Your task to perform on an android device: turn notification dots on Image 0: 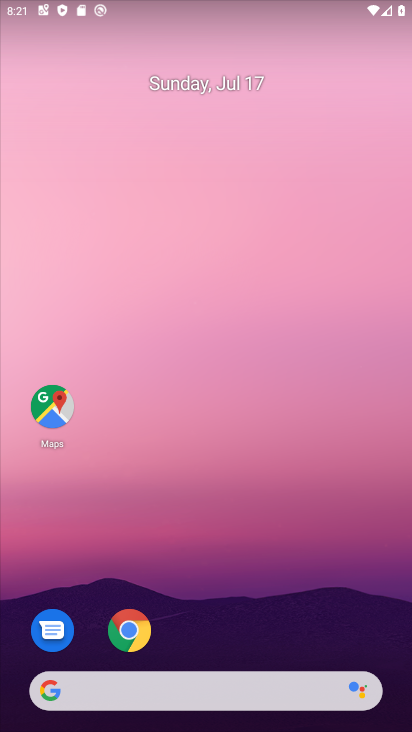
Step 0: drag from (347, 579) to (331, 27)
Your task to perform on an android device: turn notification dots on Image 1: 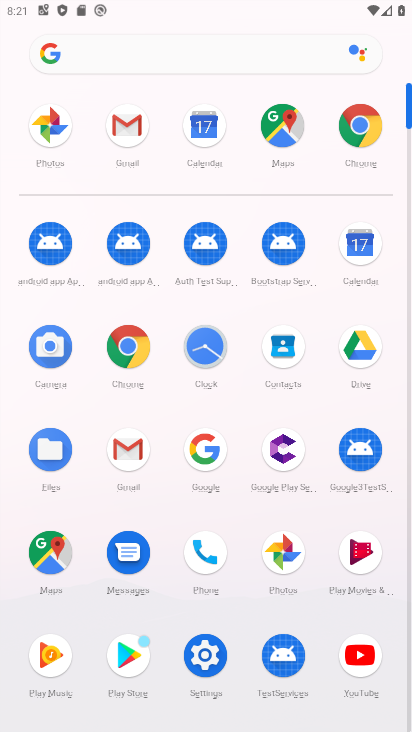
Step 1: click (210, 652)
Your task to perform on an android device: turn notification dots on Image 2: 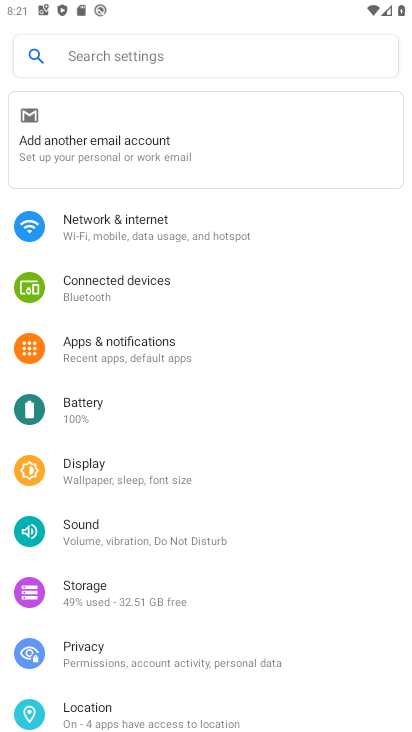
Step 2: drag from (348, 525) to (348, 363)
Your task to perform on an android device: turn notification dots on Image 3: 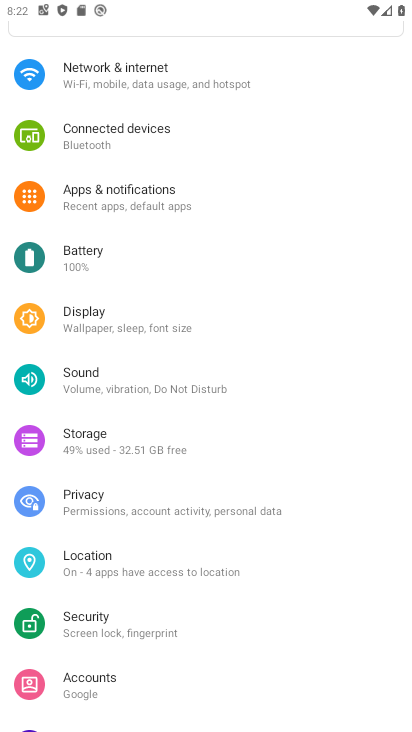
Step 3: drag from (351, 494) to (363, 371)
Your task to perform on an android device: turn notification dots on Image 4: 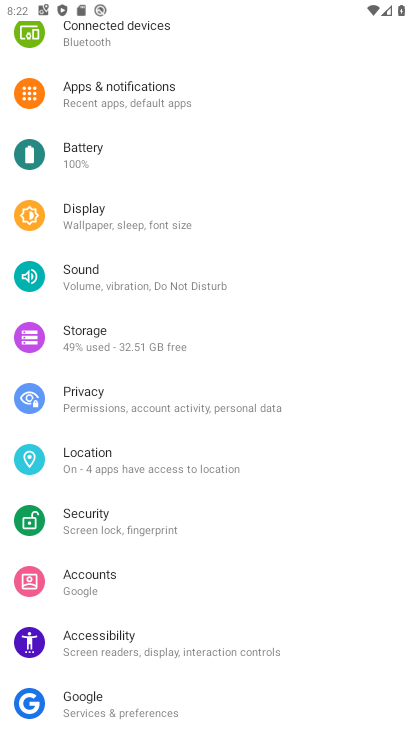
Step 4: drag from (351, 495) to (355, 371)
Your task to perform on an android device: turn notification dots on Image 5: 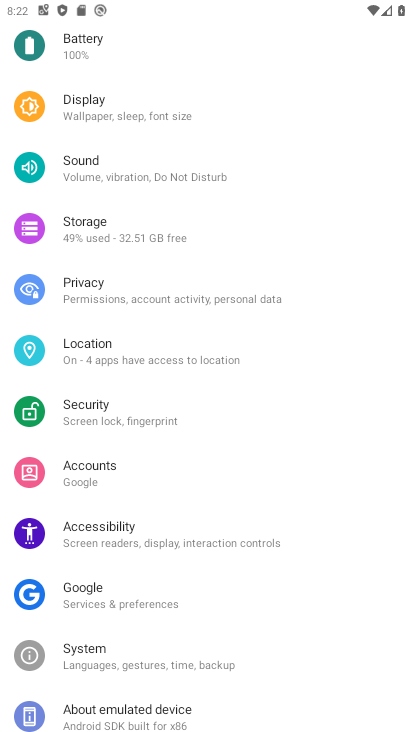
Step 5: drag from (358, 509) to (361, 364)
Your task to perform on an android device: turn notification dots on Image 6: 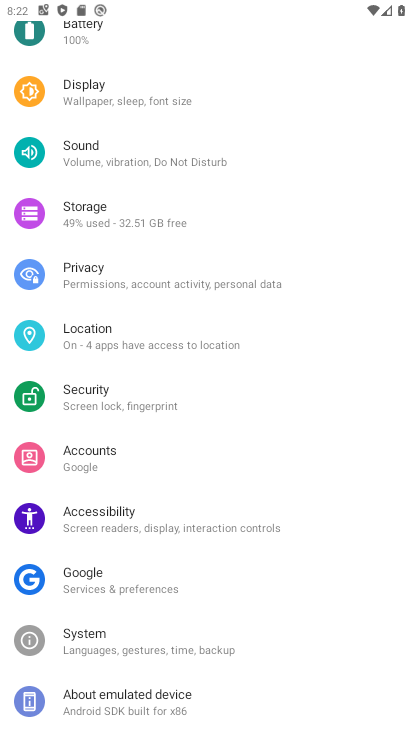
Step 6: drag from (363, 195) to (366, 361)
Your task to perform on an android device: turn notification dots on Image 7: 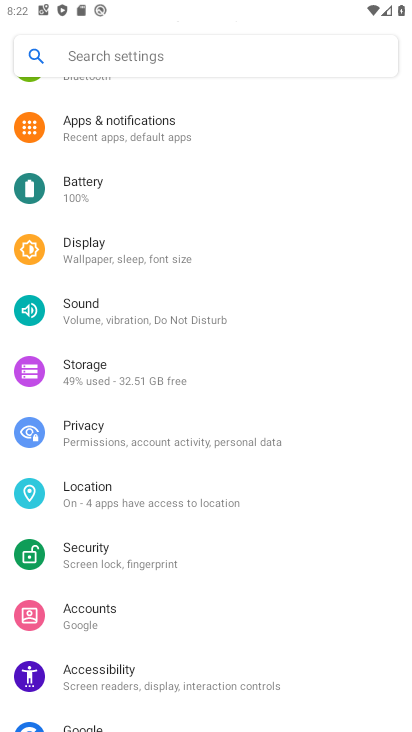
Step 7: drag from (345, 207) to (354, 350)
Your task to perform on an android device: turn notification dots on Image 8: 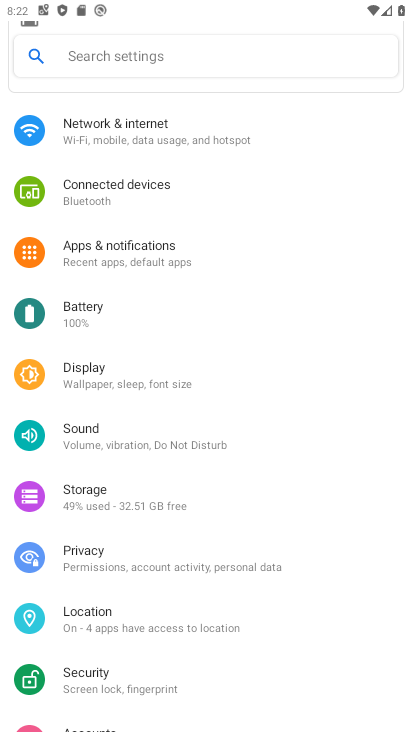
Step 8: drag from (352, 189) to (351, 403)
Your task to perform on an android device: turn notification dots on Image 9: 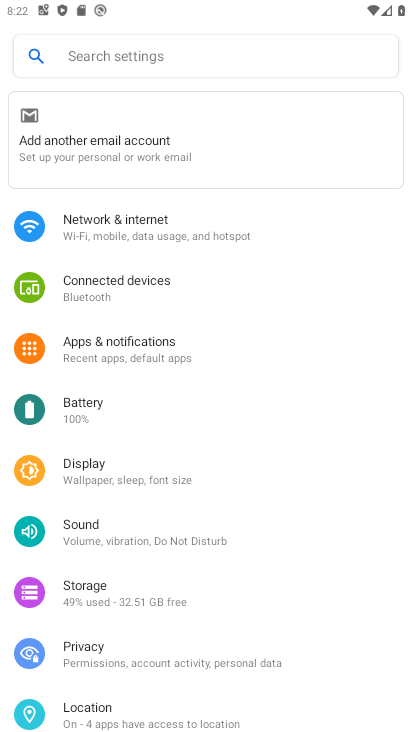
Step 9: click (201, 359)
Your task to perform on an android device: turn notification dots on Image 10: 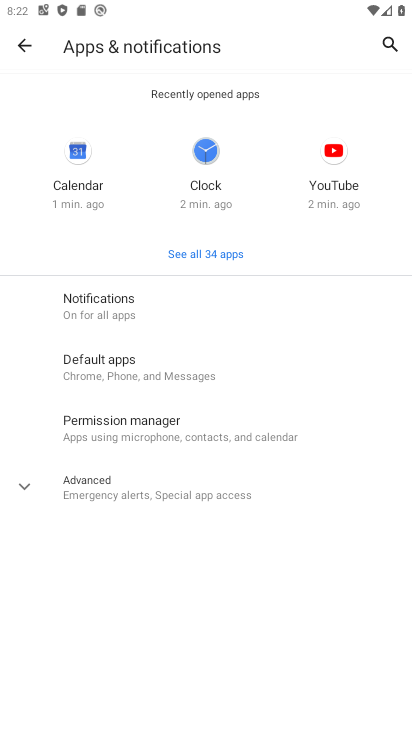
Step 10: click (209, 296)
Your task to perform on an android device: turn notification dots on Image 11: 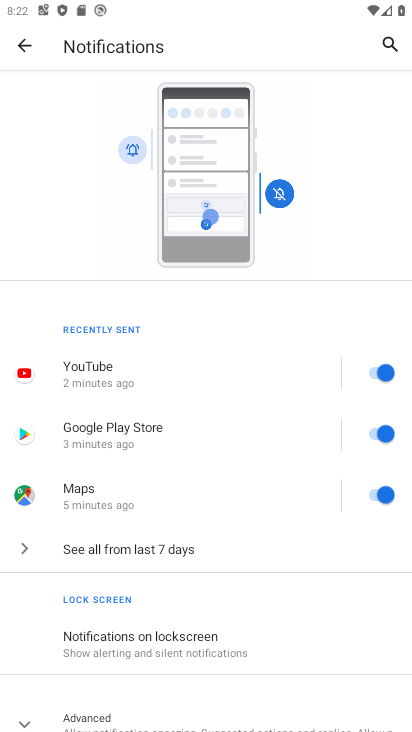
Step 11: drag from (265, 506) to (291, 361)
Your task to perform on an android device: turn notification dots on Image 12: 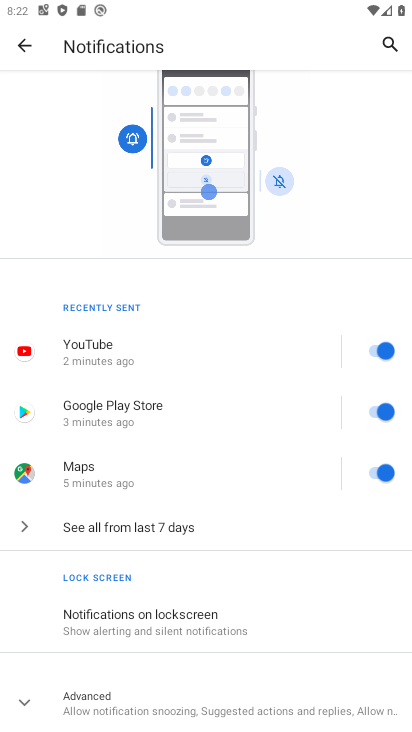
Step 12: click (258, 693)
Your task to perform on an android device: turn notification dots on Image 13: 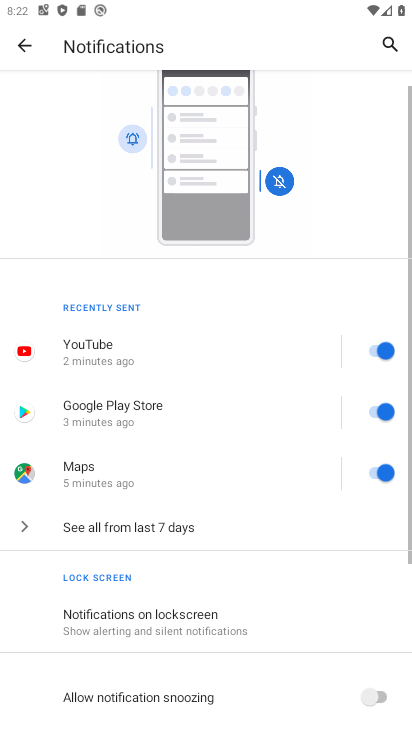
Step 13: task complete